Your task to perform on an android device: toggle data saver in the chrome app Image 0: 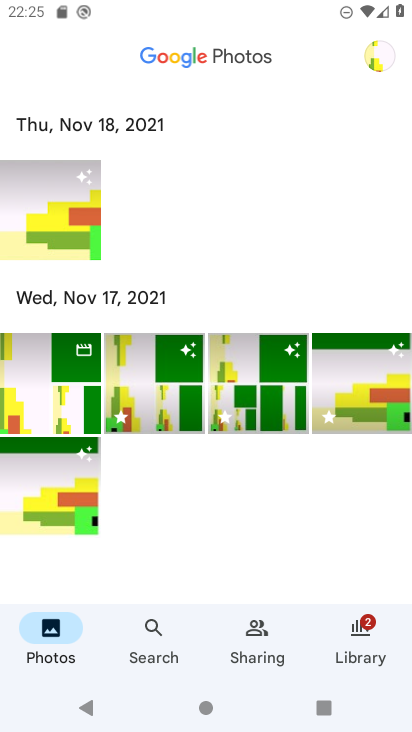
Step 0: press home button
Your task to perform on an android device: toggle data saver in the chrome app Image 1: 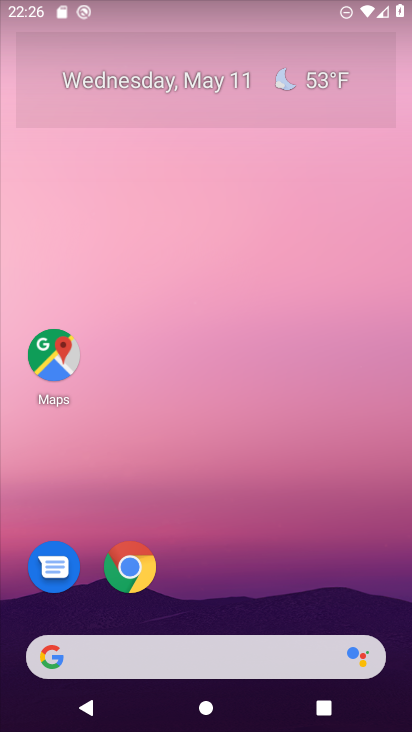
Step 1: click (118, 564)
Your task to perform on an android device: toggle data saver in the chrome app Image 2: 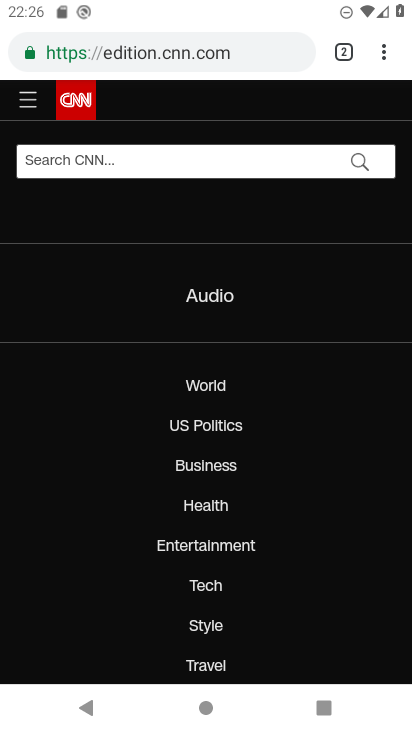
Step 2: click (382, 51)
Your task to perform on an android device: toggle data saver in the chrome app Image 3: 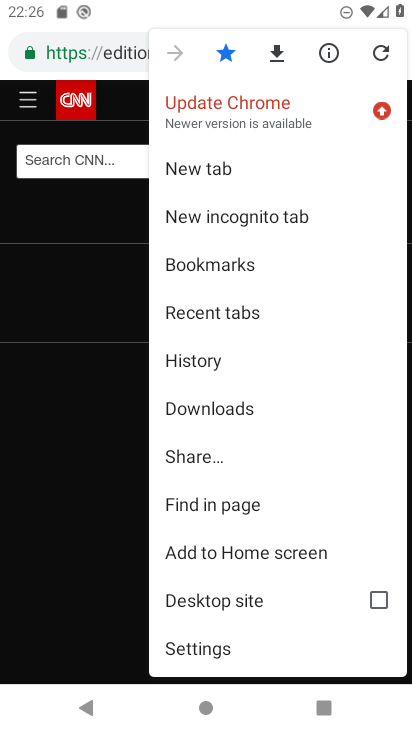
Step 3: click (202, 639)
Your task to perform on an android device: toggle data saver in the chrome app Image 4: 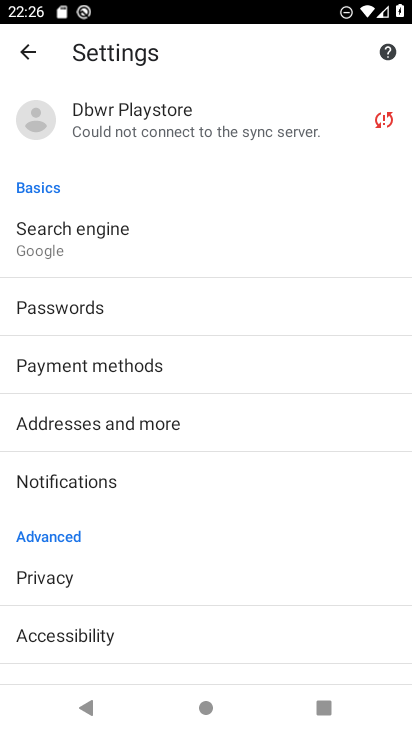
Step 4: drag from (178, 652) to (161, 145)
Your task to perform on an android device: toggle data saver in the chrome app Image 5: 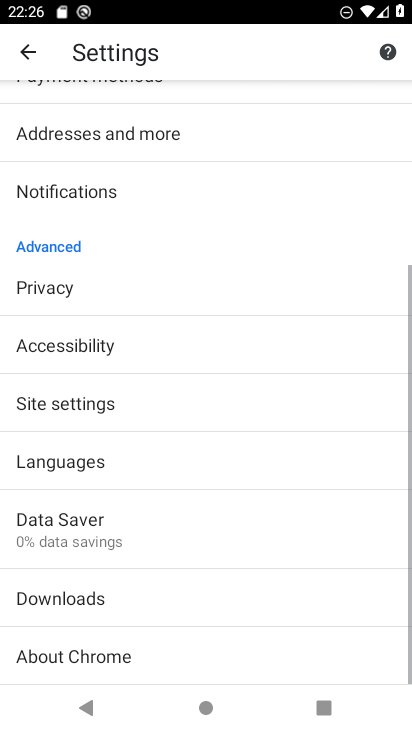
Step 5: click (112, 531)
Your task to perform on an android device: toggle data saver in the chrome app Image 6: 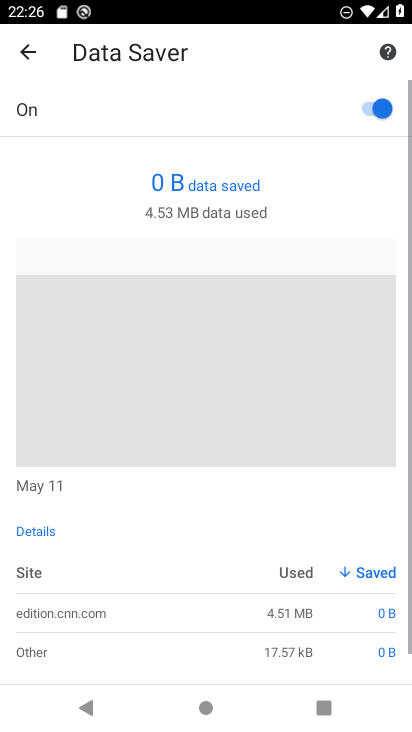
Step 6: click (382, 104)
Your task to perform on an android device: toggle data saver in the chrome app Image 7: 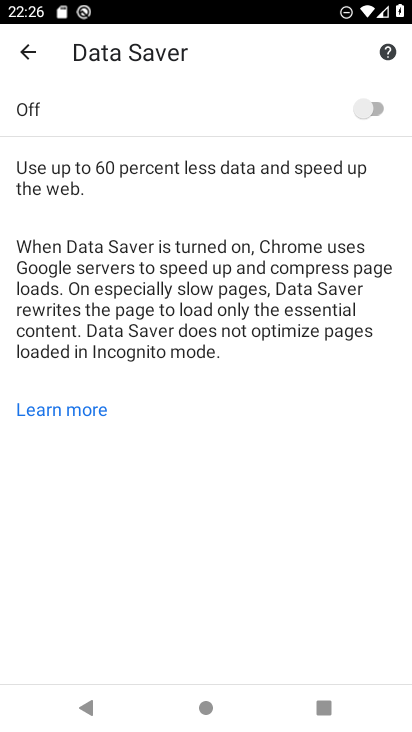
Step 7: task complete